Your task to perform on an android device: Open battery settings Image 0: 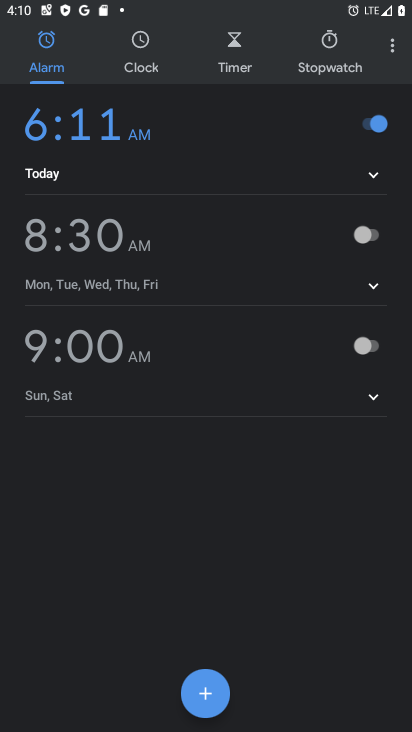
Step 0: press home button
Your task to perform on an android device: Open battery settings Image 1: 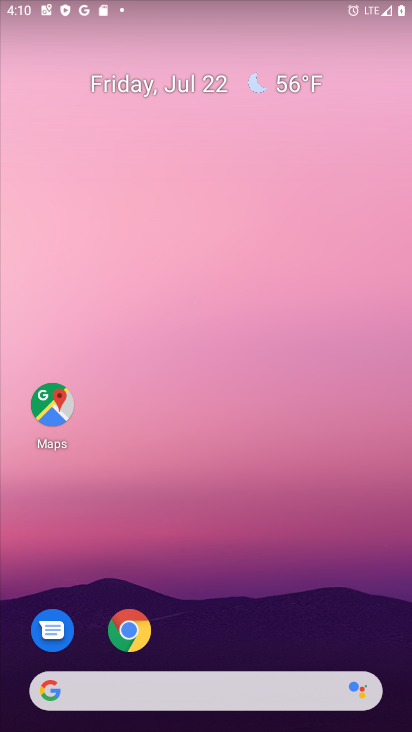
Step 1: drag from (212, 681) to (181, 168)
Your task to perform on an android device: Open battery settings Image 2: 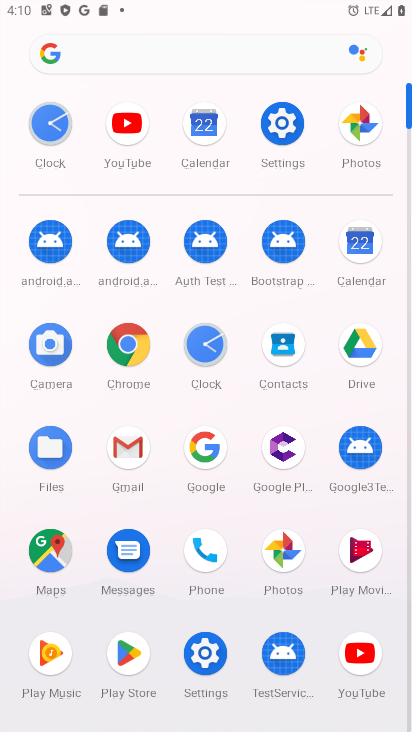
Step 2: click (286, 124)
Your task to perform on an android device: Open battery settings Image 3: 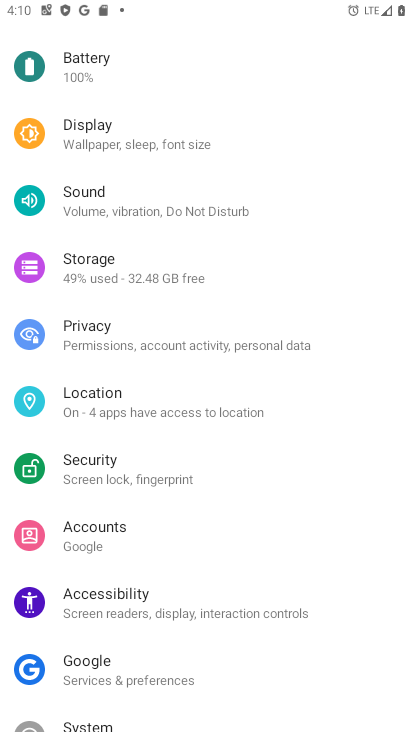
Step 3: click (88, 52)
Your task to perform on an android device: Open battery settings Image 4: 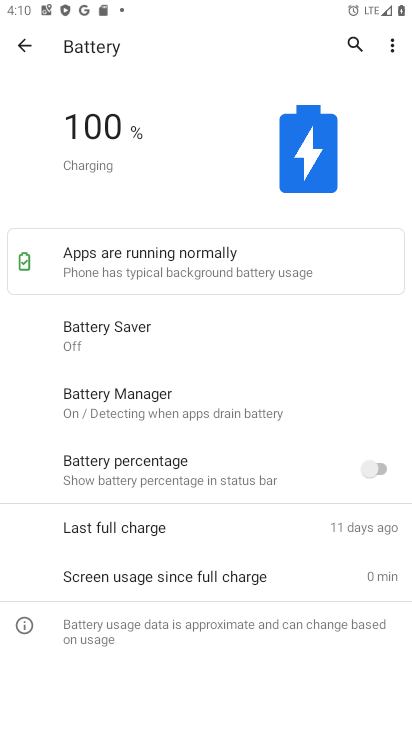
Step 4: task complete